Your task to perform on an android device: add a label to a message in the gmail app Image 0: 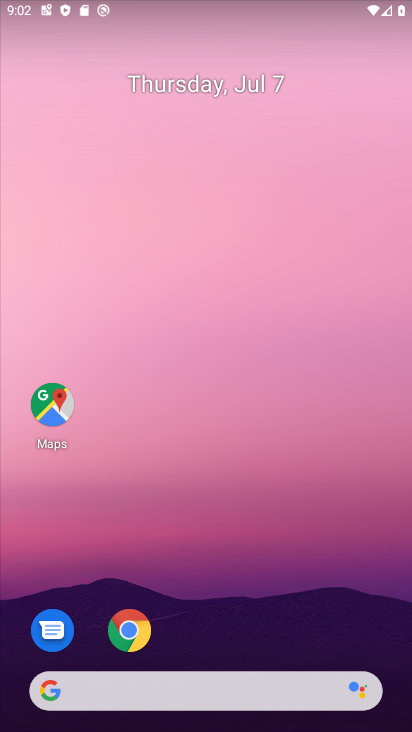
Step 0: drag from (278, 615) to (404, 72)
Your task to perform on an android device: add a label to a message in the gmail app Image 1: 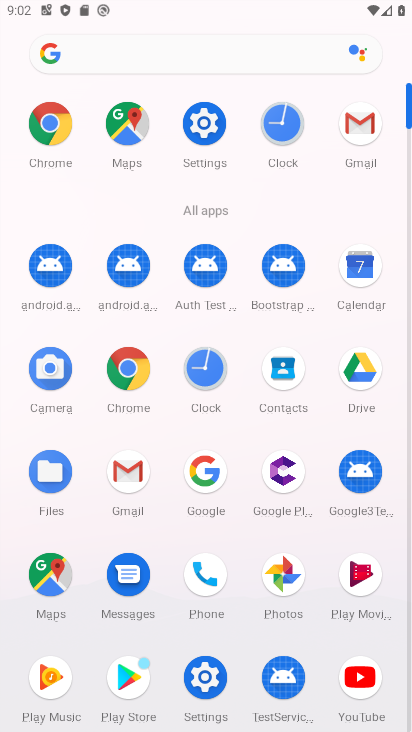
Step 1: click (360, 120)
Your task to perform on an android device: add a label to a message in the gmail app Image 2: 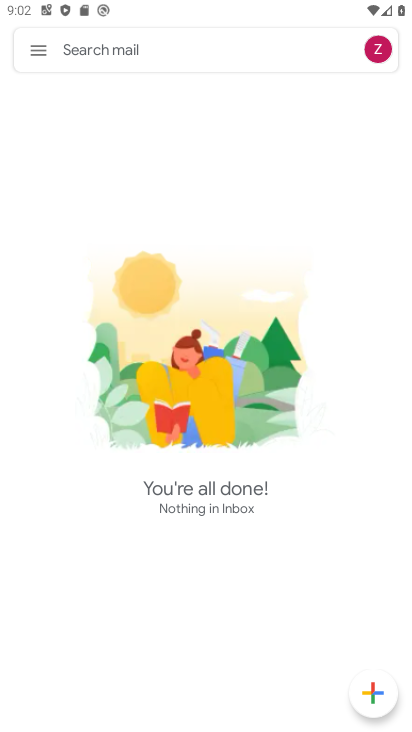
Step 2: task complete